Your task to perform on an android device: Go to calendar. Show me events next week Image 0: 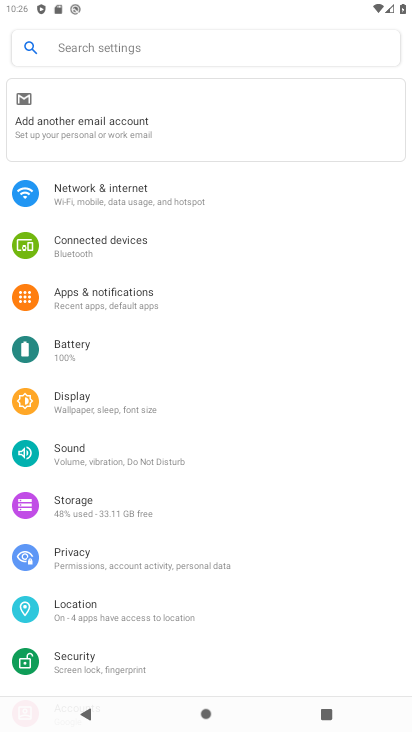
Step 0: press home button
Your task to perform on an android device: Go to calendar. Show me events next week Image 1: 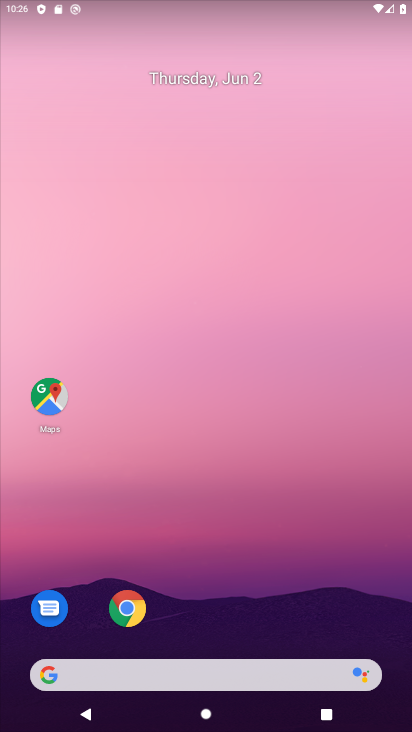
Step 1: drag from (179, 667) to (237, 394)
Your task to perform on an android device: Go to calendar. Show me events next week Image 2: 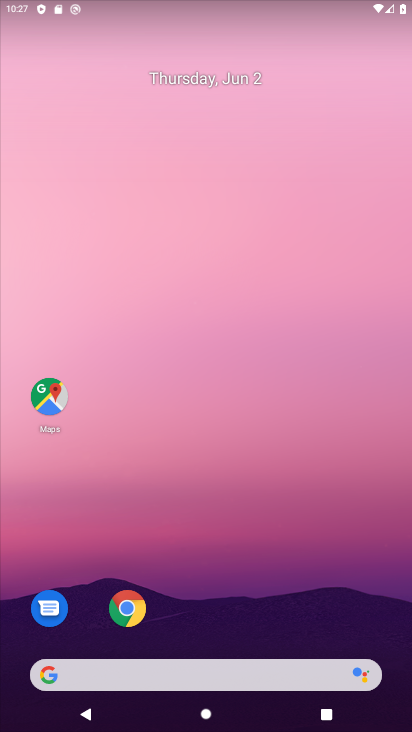
Step 2: drag from (153, 652) to (249, 184)
Your task to perform on an android device: Go to calendar. Show me events next week Image 3: 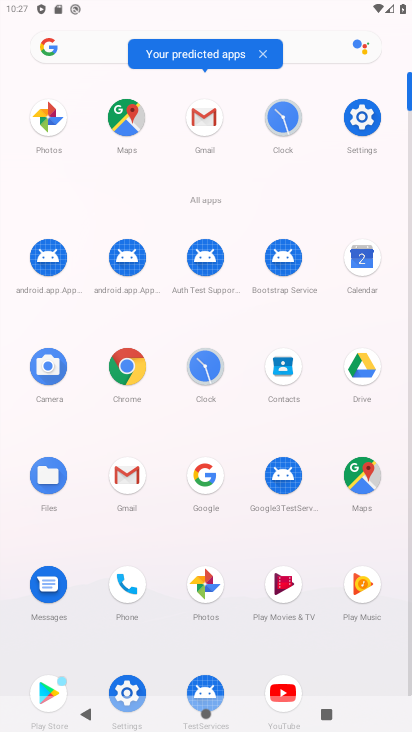
Step 3: click (358, 266)
Your task to perform on an android device: Go to calendar. Show me events next week Image 4: 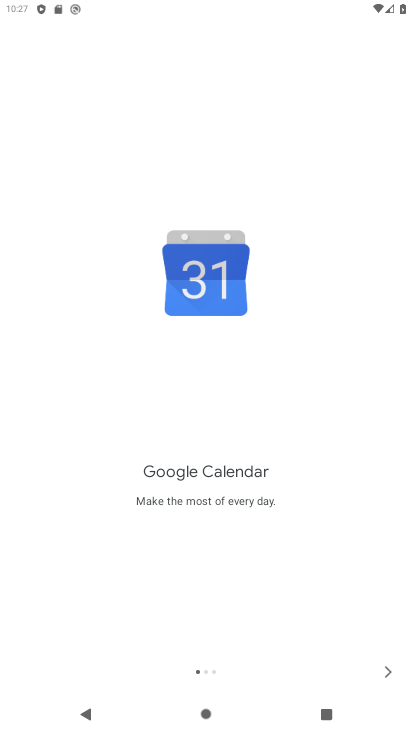
Step 4: click (377, 669)
Your task to perform on an android device: Go to calendar. Show me events next week Image 5: 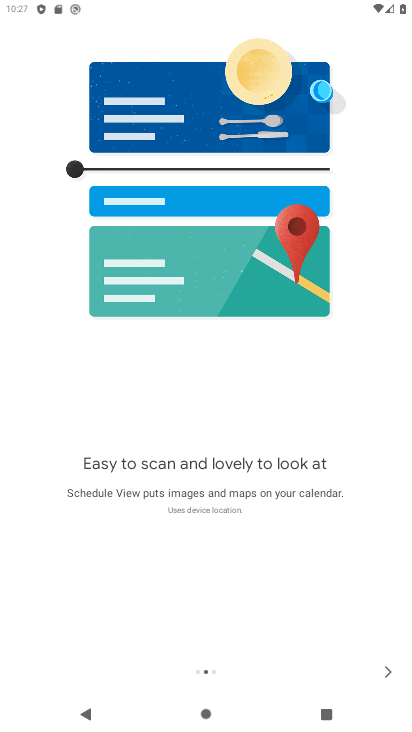
Step 5: click (377, 679)
Your task to perform on an android device: Go to calendar. Show me events next week Image 6: 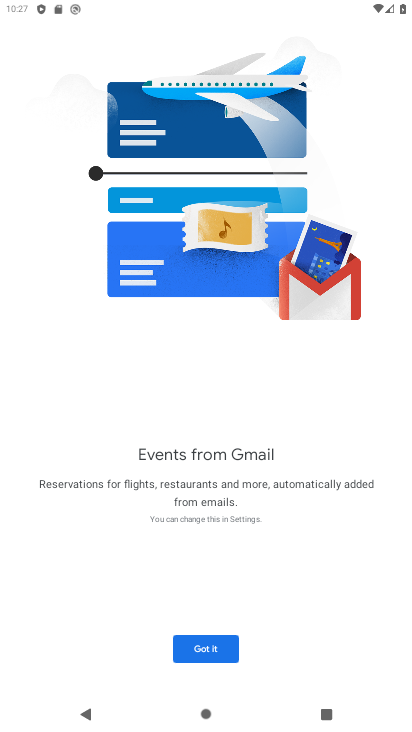
Step 6: click (209, 650)
Your task to perform on an android device: Go to calendar. Show me events next week Image 7: 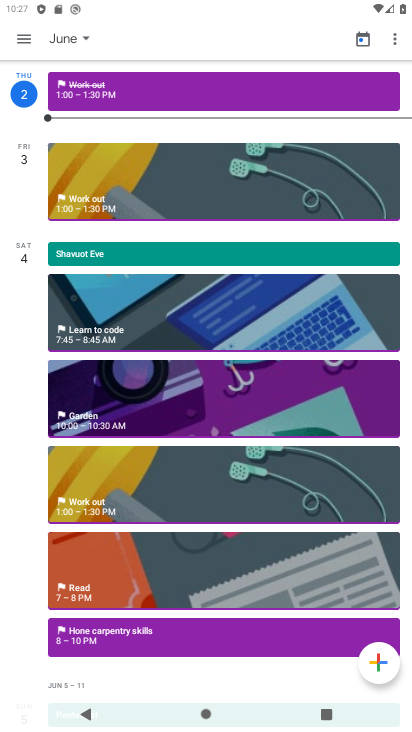
Step 7: click (19, 32)
Your task to perform on an android device: Go to calendar. Show me events next week Image 8: 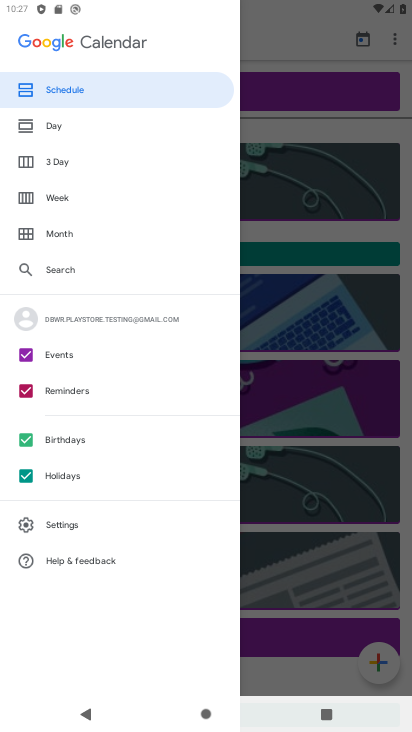
Step 8: click (83, 206)
Your task to perform on an android device: Go to calendar. Show me events next week Image 9: 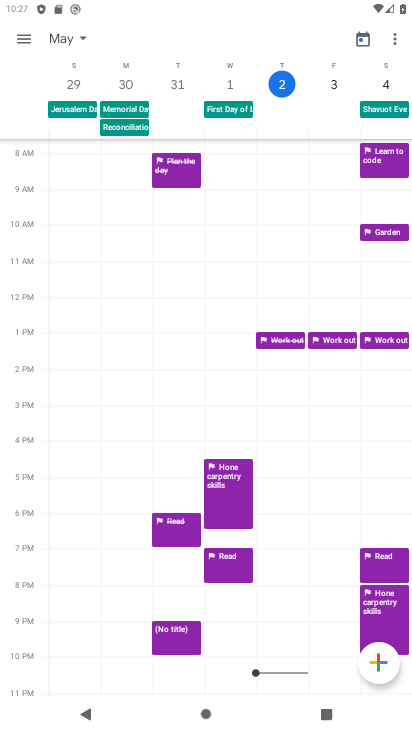
Step 9: click (84, 42)
Your task to perform on an android device: Go to calendar. Show me events next week Image 10: 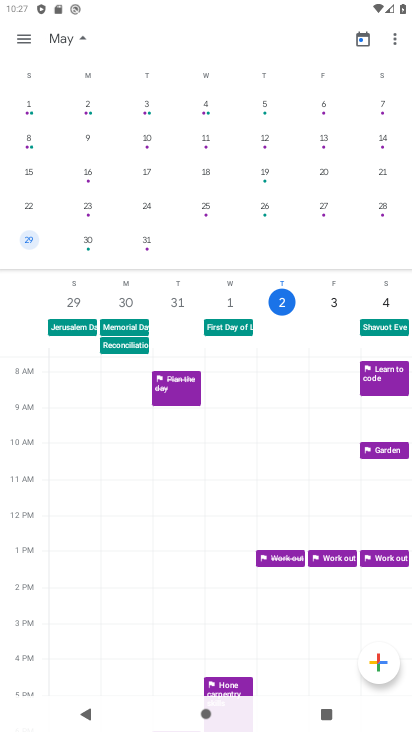
Step 10: drag from (398, 219) to (3, 129)
Your task to perform on an android device: Go to calendar. Show me events next week Image 11: 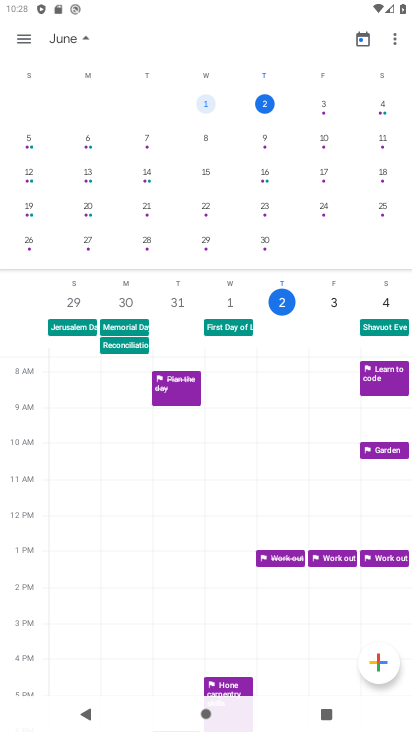
Step 11: click (33, 140)
Your task to perform on an android device: Go to calendar. Show me events next week Image 12: 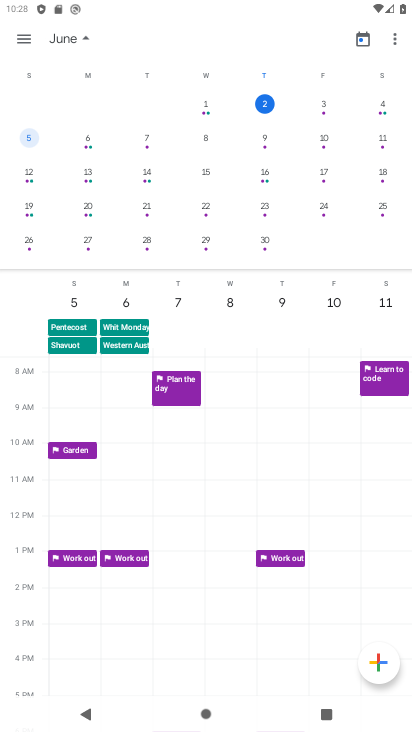
Step 12: click (78, 35)
Your task to perform on an android device: Go to calendar. Show me events next week Image 13: 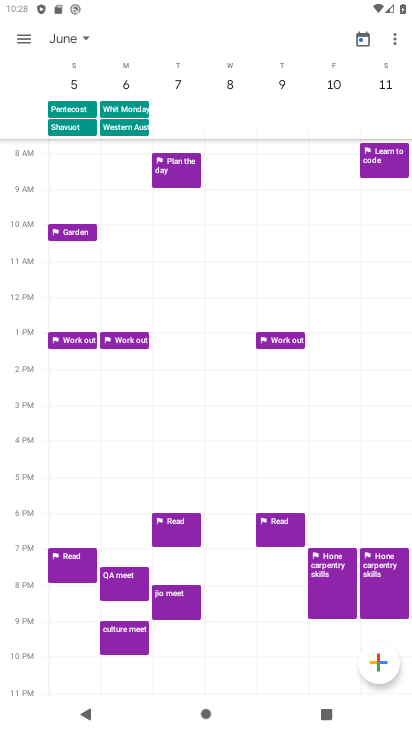
Step 13: task complete